Your task to perform on an android device: Open Google Chrome Image 0: 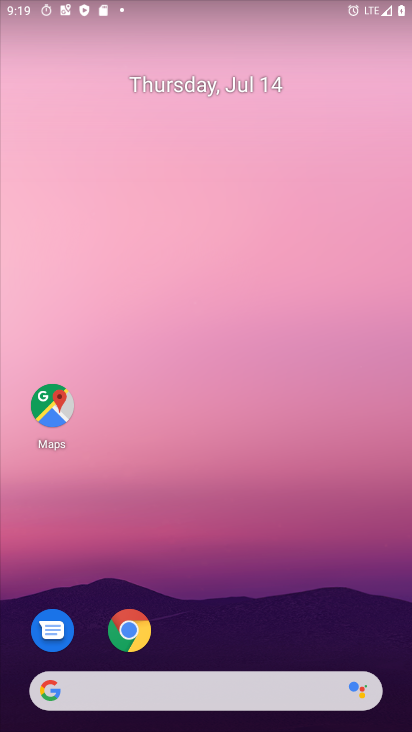
Step 0: click (132, 627)
Your task to perform on an android device: Open Google Chrome Image 1: 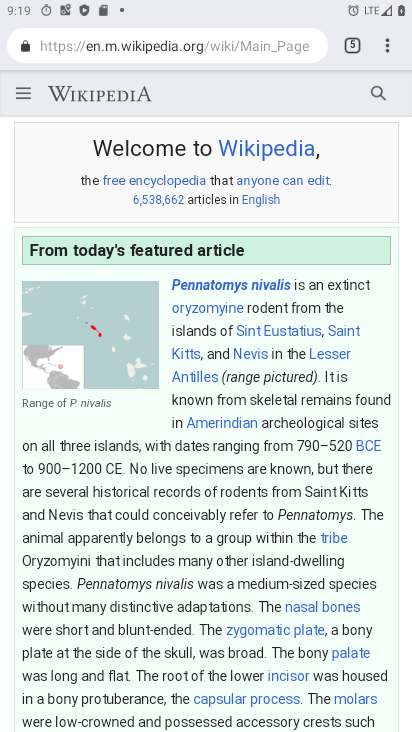
Step 1: task complete